Your task to perform on an android device: change notifications settings Image 0: 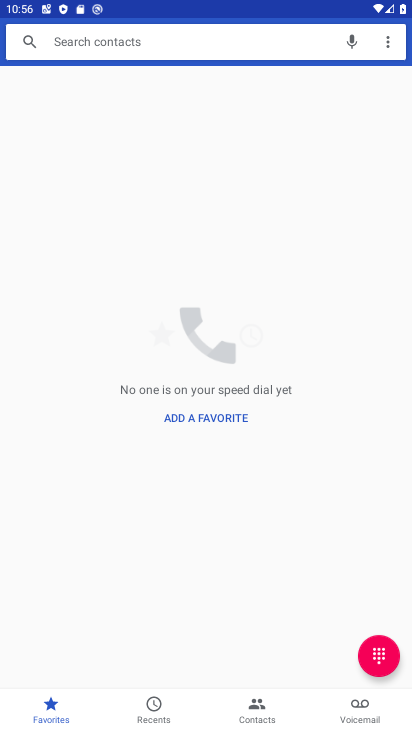
Step 0: press home button
Your task to perform on an android device: change notifications settings Image 1: 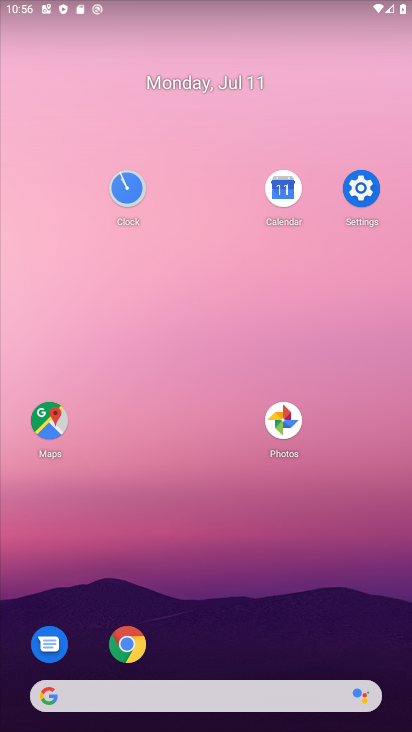
Step 1: click (370, 183)
Your task to perform on an android device: change notifications settings Image 2: 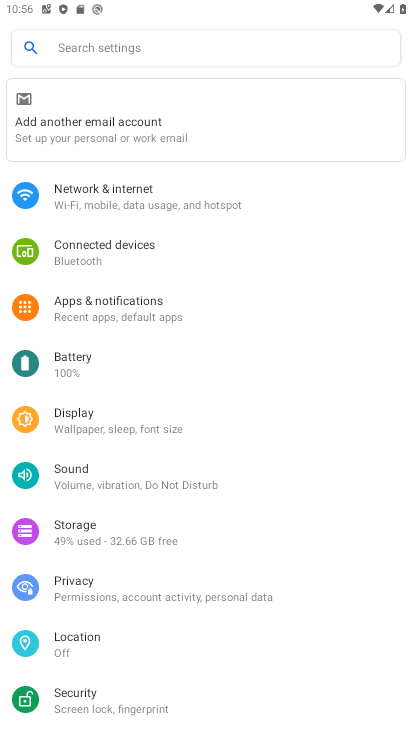
Step 2: click (176, 295)
Your task to perform on an android device: change notifications settings Image 3: 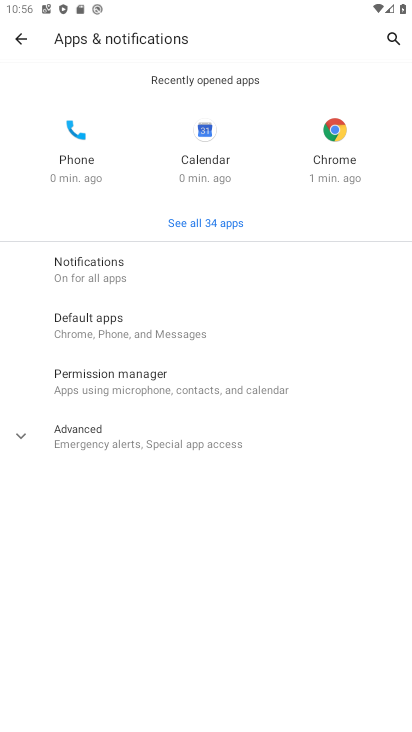
Step 3: click (183, 279)
Your task to perform on an android device: change notifications settings Image 4: 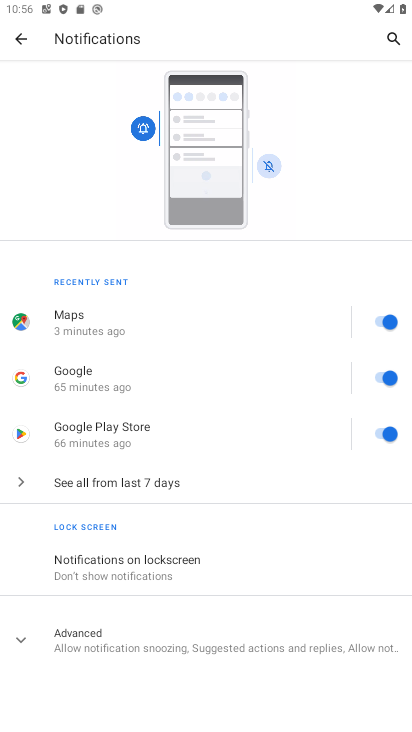
Step 4: click (174, 645)
Your task to perform on an android device: change notifications settings Image 5: 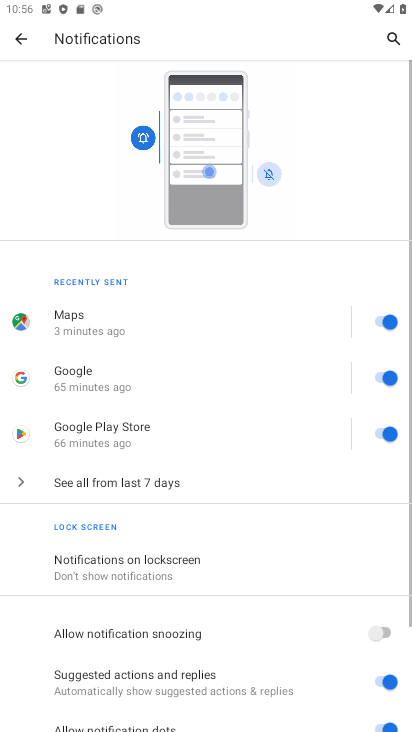
Step 5: drag from (174, 645) to (199, 407)
Your task to perform on an android device: change notifications settings Image 6: 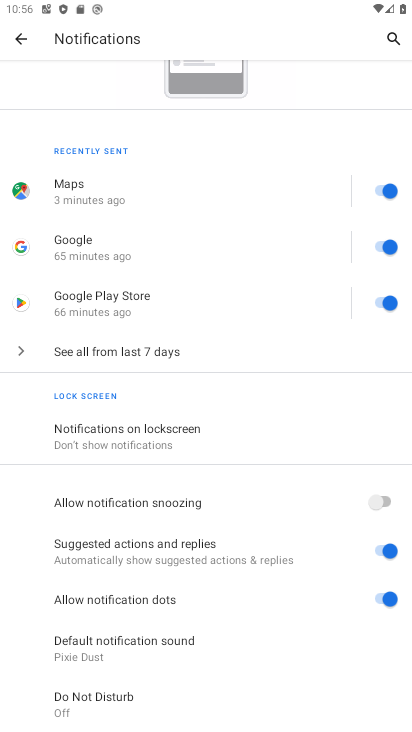
Step 6: click (384, 511)
Your task to perform on an android device: change notifications settings Image 7: 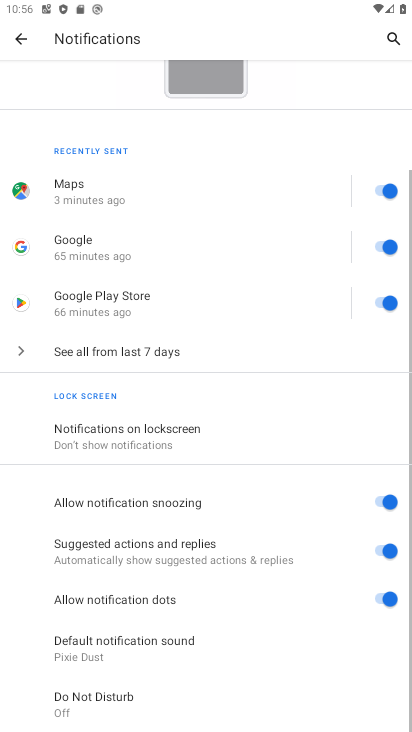
Step 7: click (382, 555)
Your task to perform on an android device: change notifications settings Image 8: 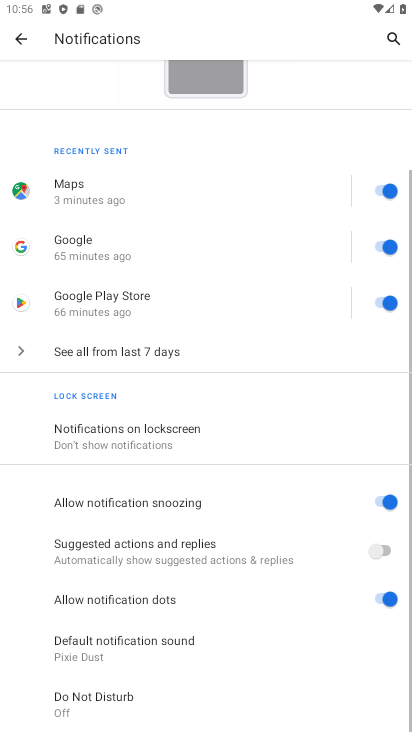
Step 8: click (391, 602)
Your task to perform on an android device: change notifications settings Image 9: 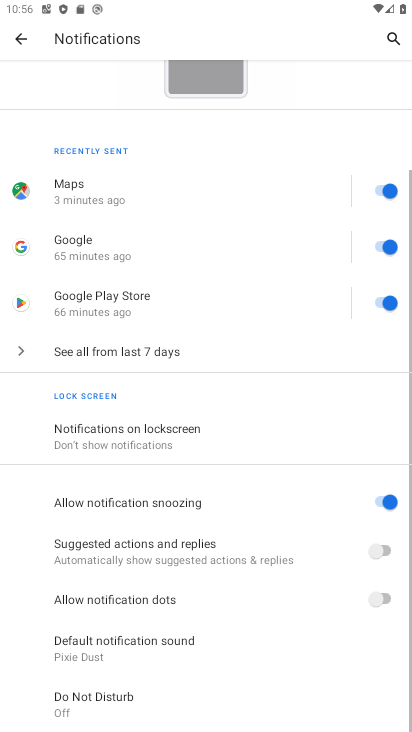
Step 9: task complete